Your task to perform on an android device: delete location history Image 0: 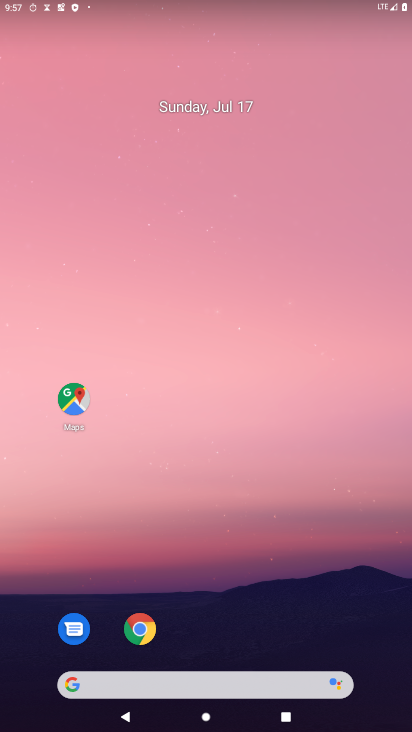
Step 0: drag from (226, 661) to (222, 125)
Your task to perform on an android device: delete location history Image 1: 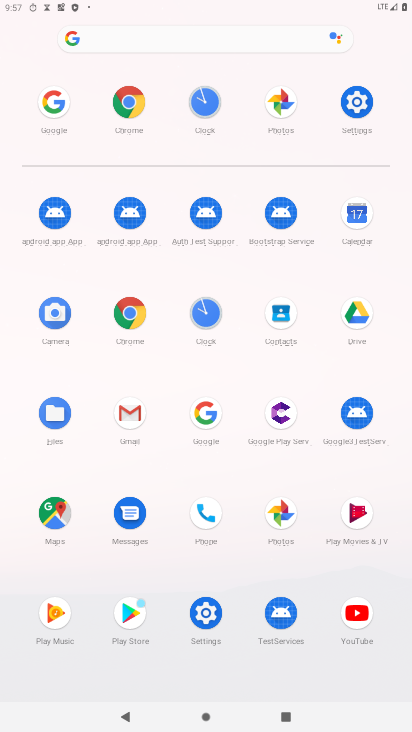
Step 1: click (54, 507)
Your task to perform on an android device: delete location history Image 2: 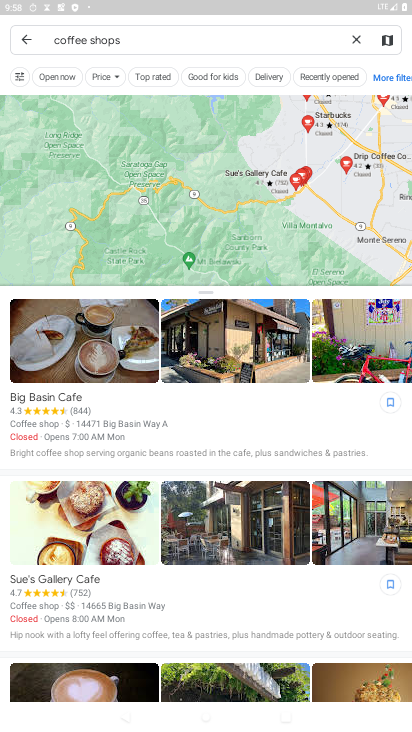
Step 2: click (24, 38)
Your task to perform on an android device: delete location history Image 3: 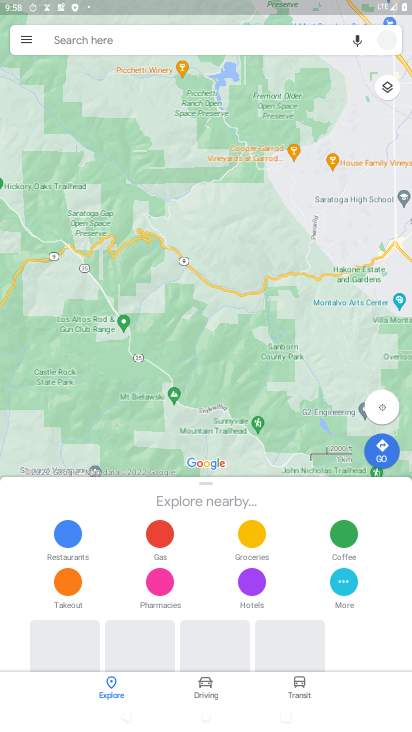
Step 3: click (25, 33)
Your task to perform on an android device: delete location history Image 4: 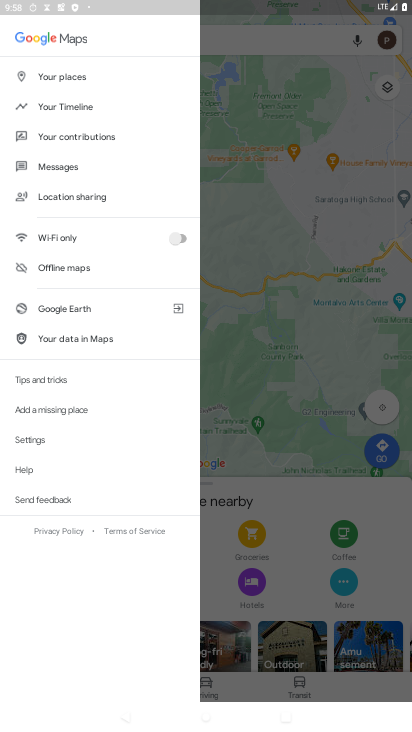
Step 4: click (69, 106)
Your task to perform on an android device: delete location history Image 5: 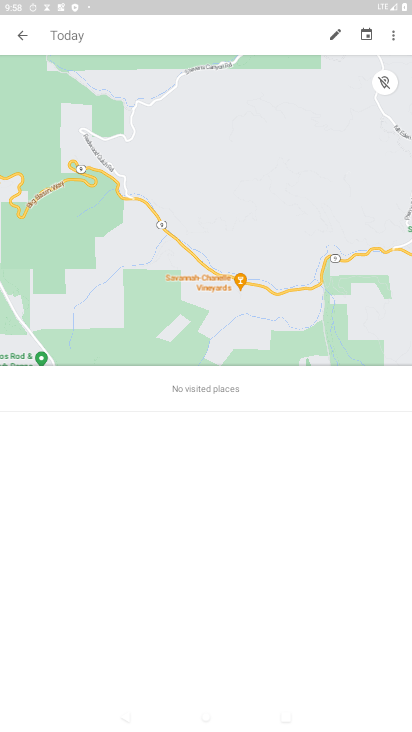
Step 5: click (395, 38)
Your task to perform on an android device: delete location history Image 6: 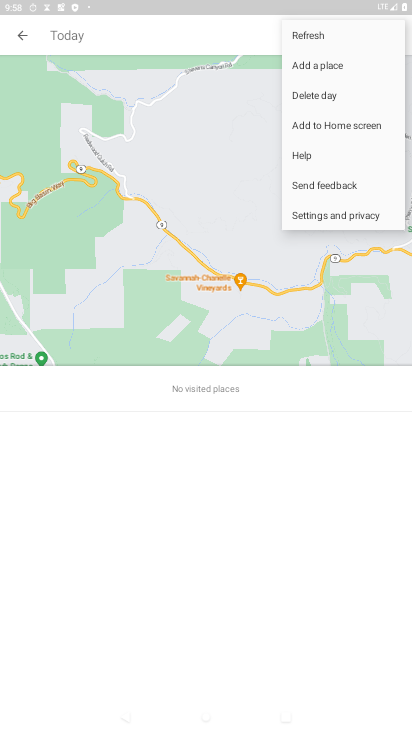
Step 6: click (330, 215)
Your task to perform on an android device: delete location history Image 7: 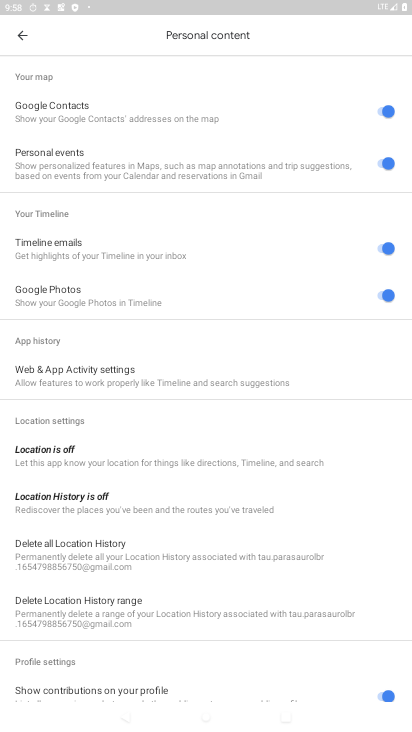
Step 7: click (72, 555)
Your task to perform on an android device: delete location history Image 8: 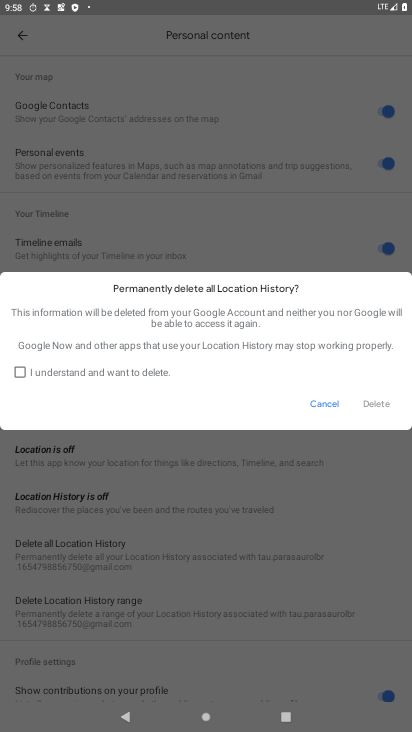
Step 8: click (22, 372)
Your task to perform on an android device: delete location history Image 9: 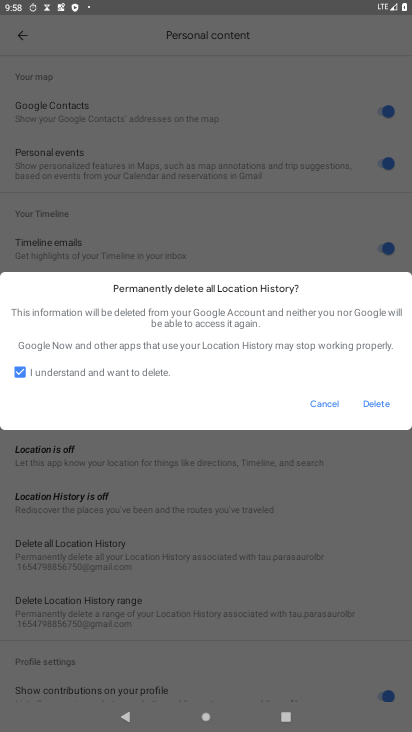
Step 9: click (378, 403)
Your task to perform on an android device: delete location history Image 10: 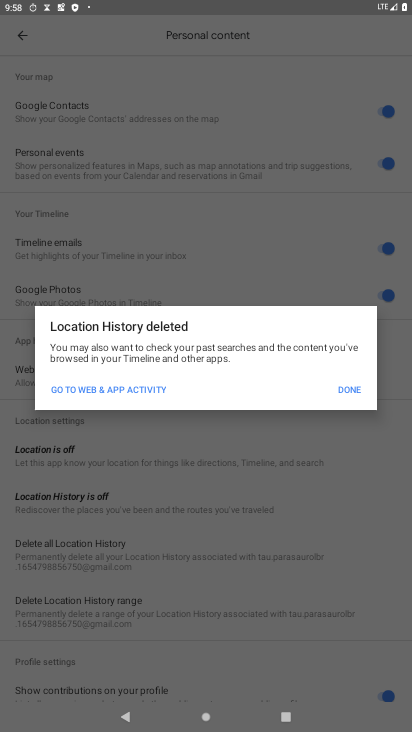
Step 10: click (345, 389)
Your task to perform on an android device: delete location history Image 11: 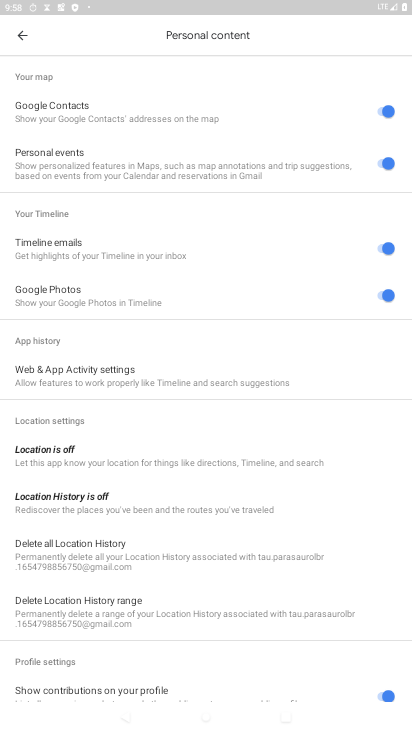
Step 11: task complete